Your task to perform on an android device: change timer sound Image 0: 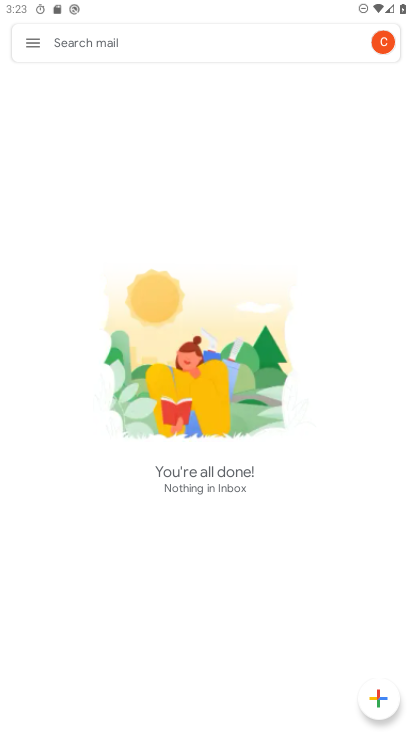
Step 0: press home button
Your task to perform on an android device: change timer sound Image 1: 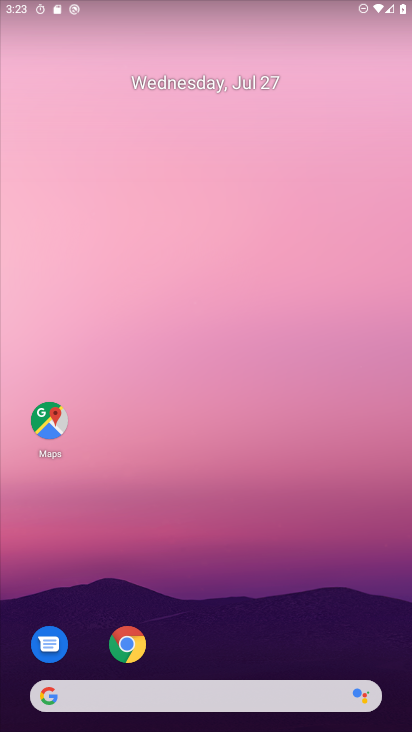
Step 1: drag from (199, 614) to (235, 193)
Your task to perform on an android device: change timer sound Image 2: 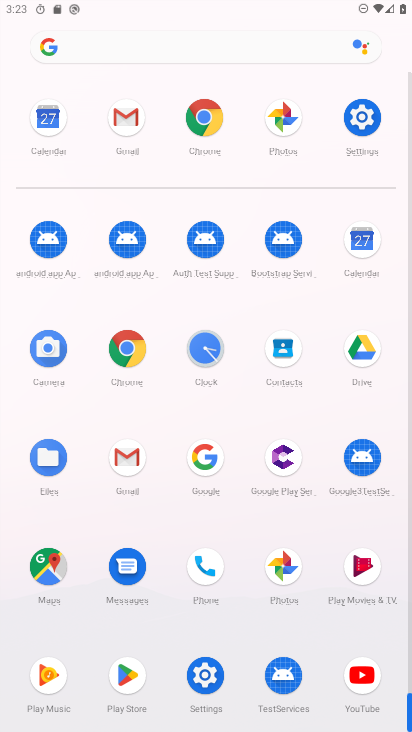
Step 2: click (211, 362)
Your task to perform on an android device: change timer sound Image 3: 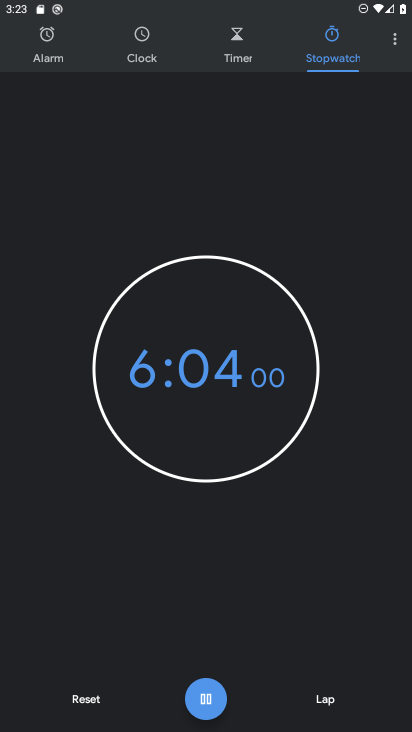
Step 3: click (384, 28)
Your task to perform on an android device: change timer sound Image 4: 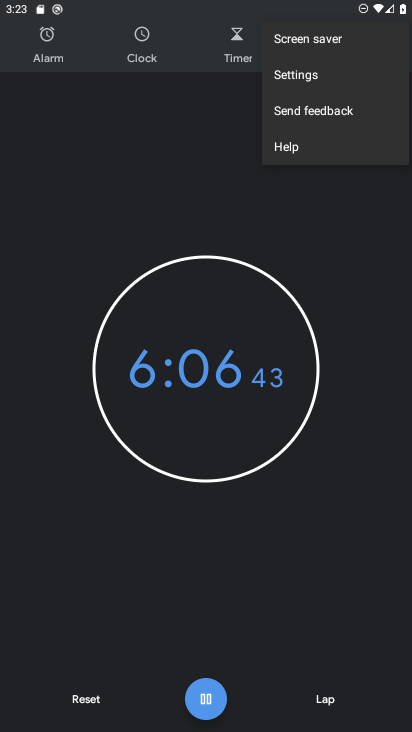
Step 4: click (315, 83)
Your task to perform on an android device: change timer sound Image 5: 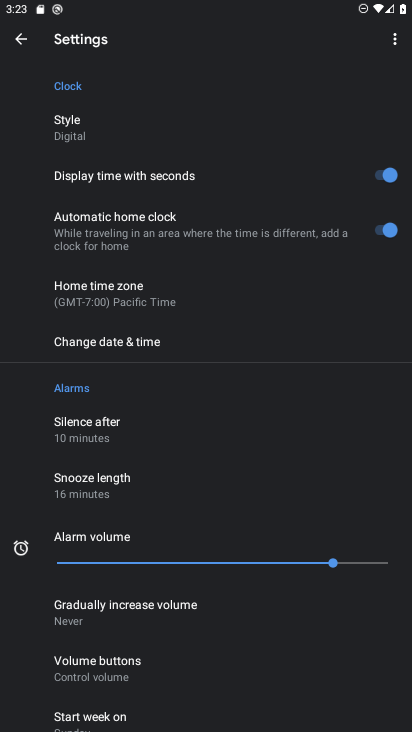
Step 5: drag from (119, 511) to (129, 296)
Your task to perform on an android device: change timer sound Image 6: 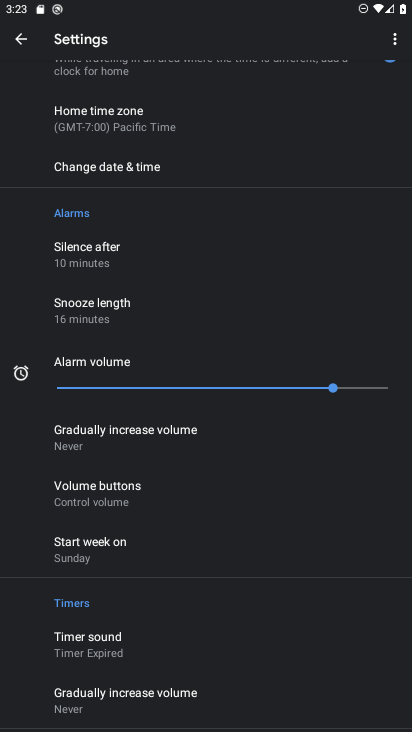
Step 6: click (106, 653)
Your task to perform on an android device: change timer sound Image 7: 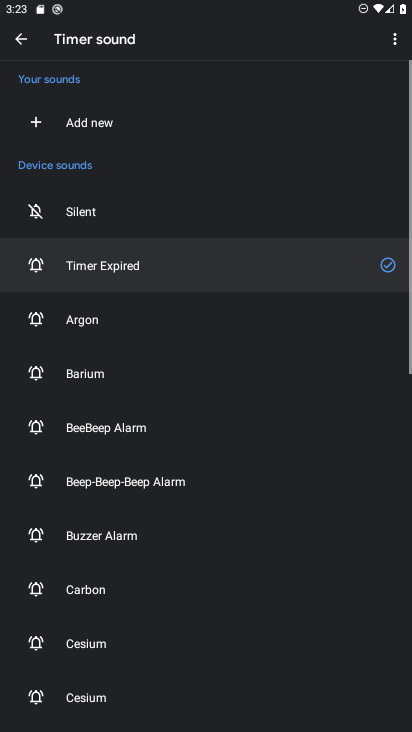
Step 7: click (94, 329)
Your task to perform on an android device: change timer sound Image 8: 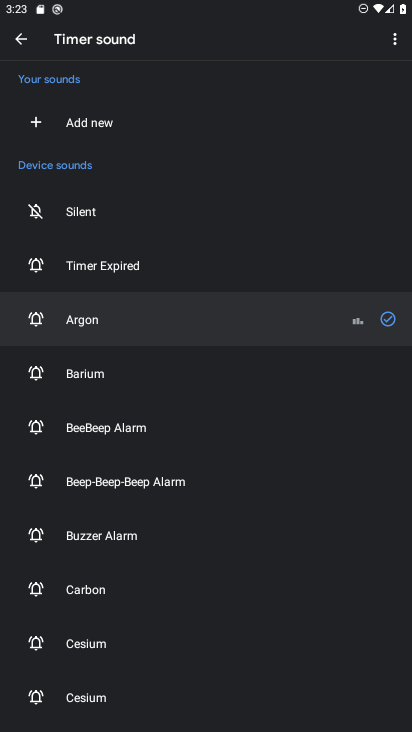
Step 8: task complete